Your task to perform on an android device: Search for "acer predator" on target.com, select the first entry, and add it to the cart. Image 0: 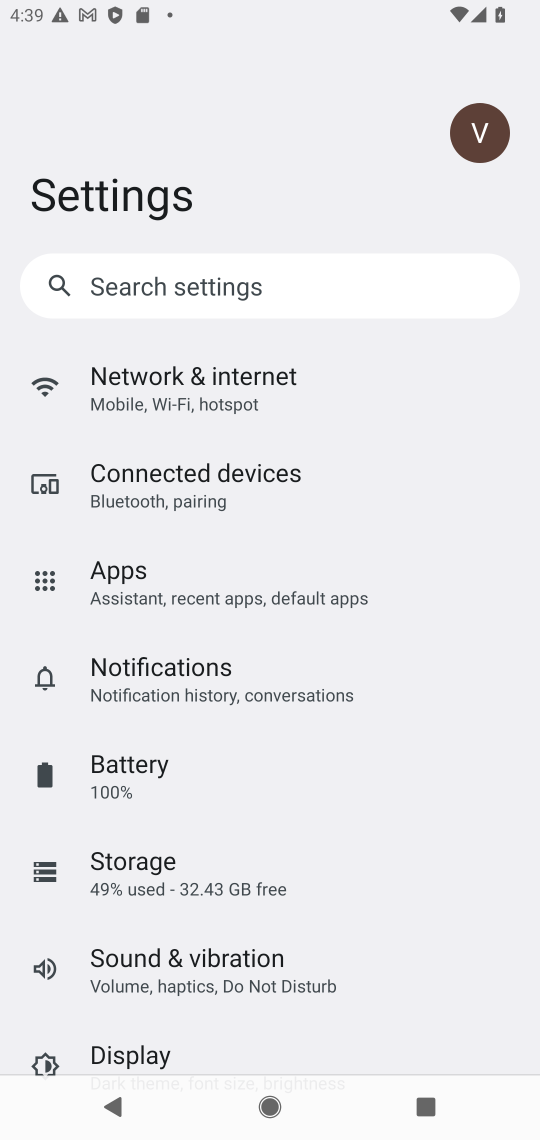
Step 0: press home button
Your task to perform on an android device: Search for "acer predator" on target.com, select the first entry, and add it to the cart. Image 1: 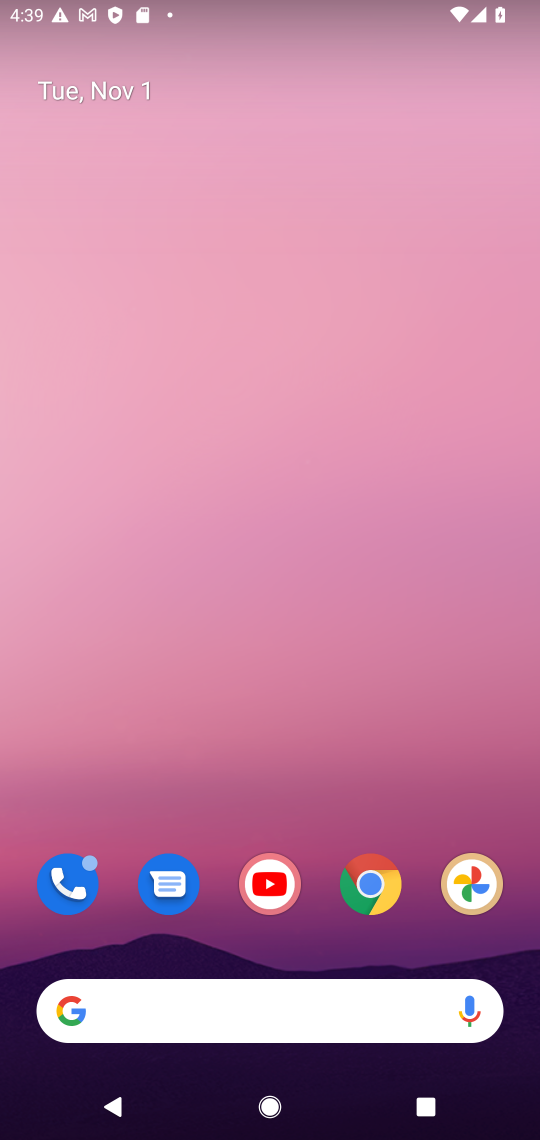
Step 1: click (376, 885)
Your task to perform on an android device: Search for "acer predator" on target.com, select the first entry, and add it to the cart. Image 2: 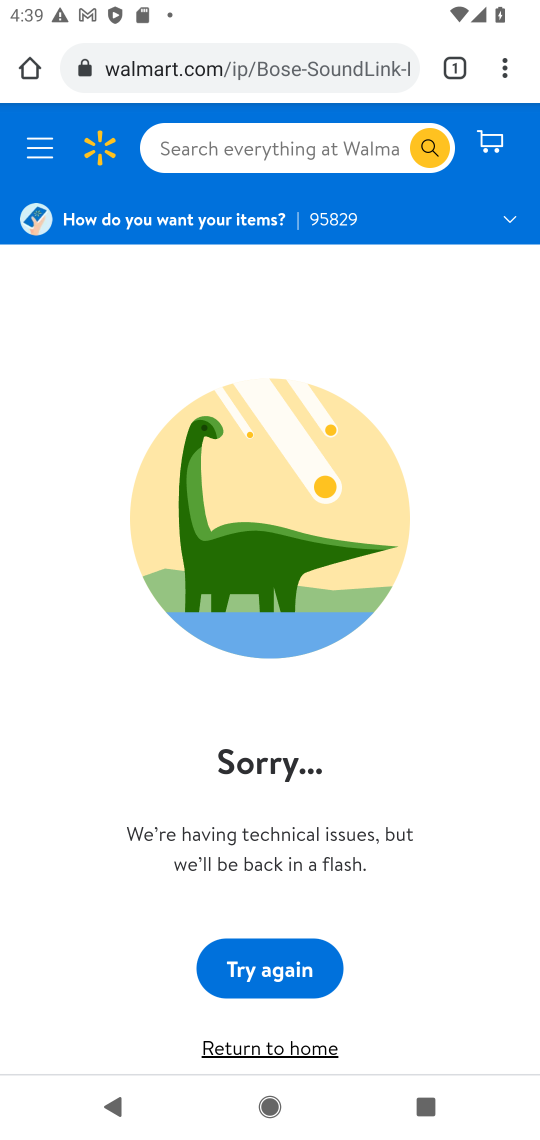
Step 2: click (258, 68)
Your task to perform on an android device: Search for "acer predator" on target.com, select the first entry, and add it to the cart. Image 3: 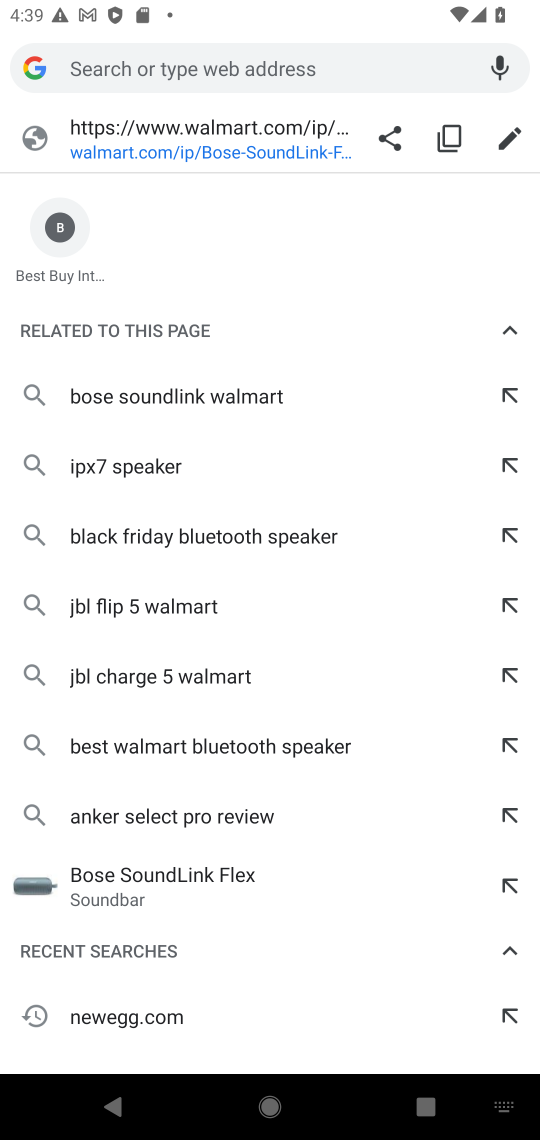
Step 3: type "target"
Your task to perform on an android device: Search for "acer predator" on target.com, select the first entry, and add it to the cart. Image 4: 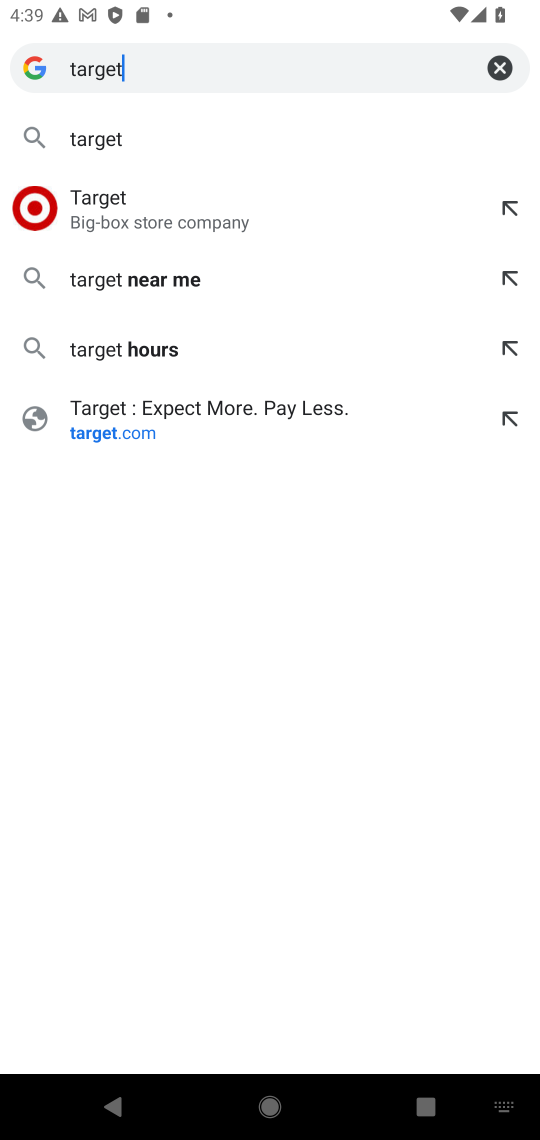
Step 4: click (111, 142)
Your task to perform on an android device: Search for "acer predator" on target.com, select the first entry, and add it to the cart. Image 5: 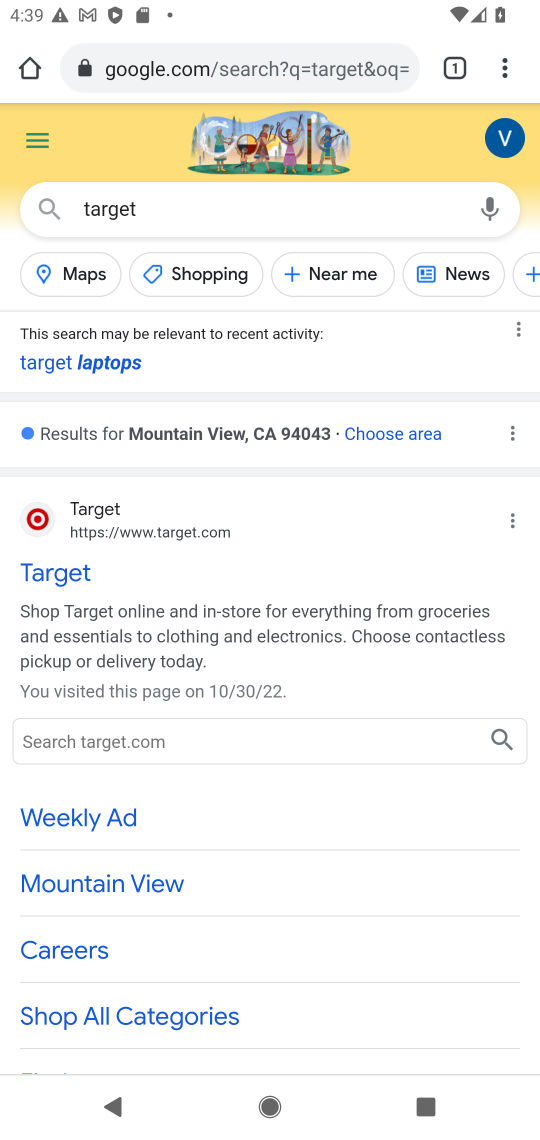
Step 5: click (85, 560)
Your task to perform on an android device: Search for "acer predator" on target.com, select the first entry, and add it to the cart. Image 6: 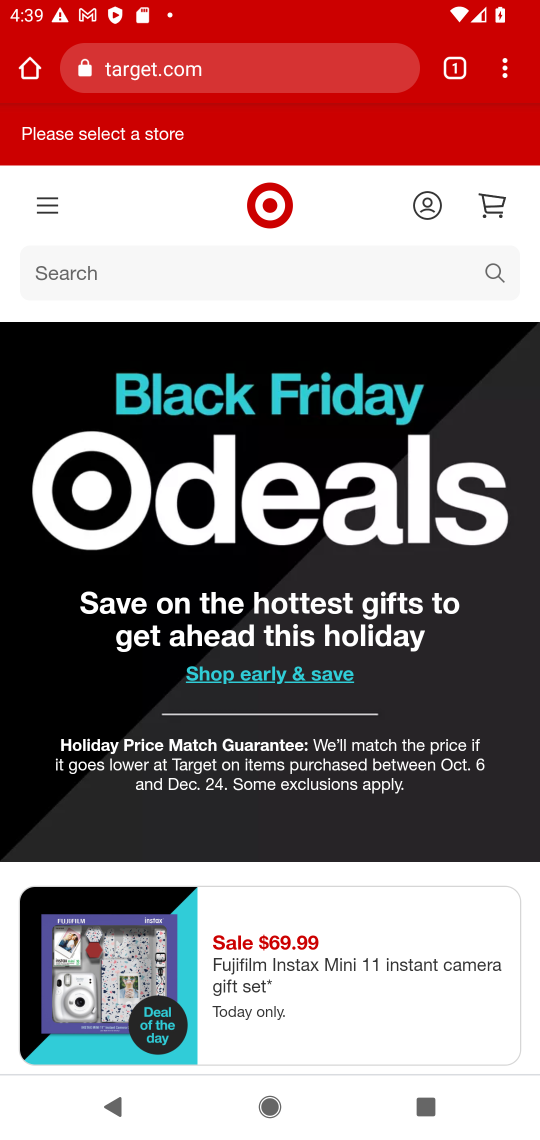
Step 6: click (232, 271)
Your task to perform on an android device: Search for "acer predator" on target.com, select the first entry, and add it to the cart. Image 7: 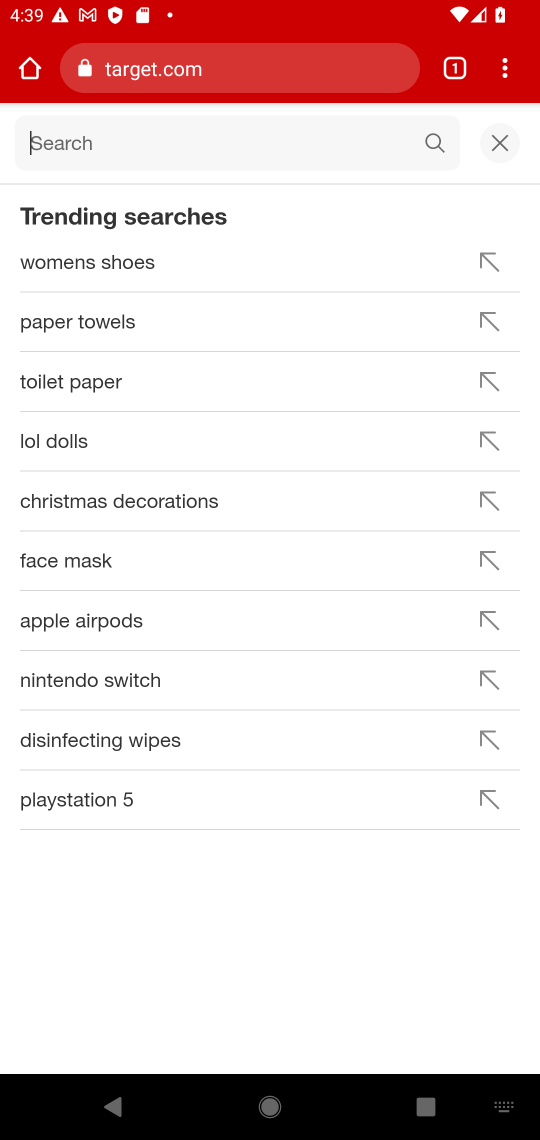
Step 7: type "acer predator"
Your task to perform on an android device: Search for "acer predator" on target.com, select the first entry, and add it to the cart. Image 8: 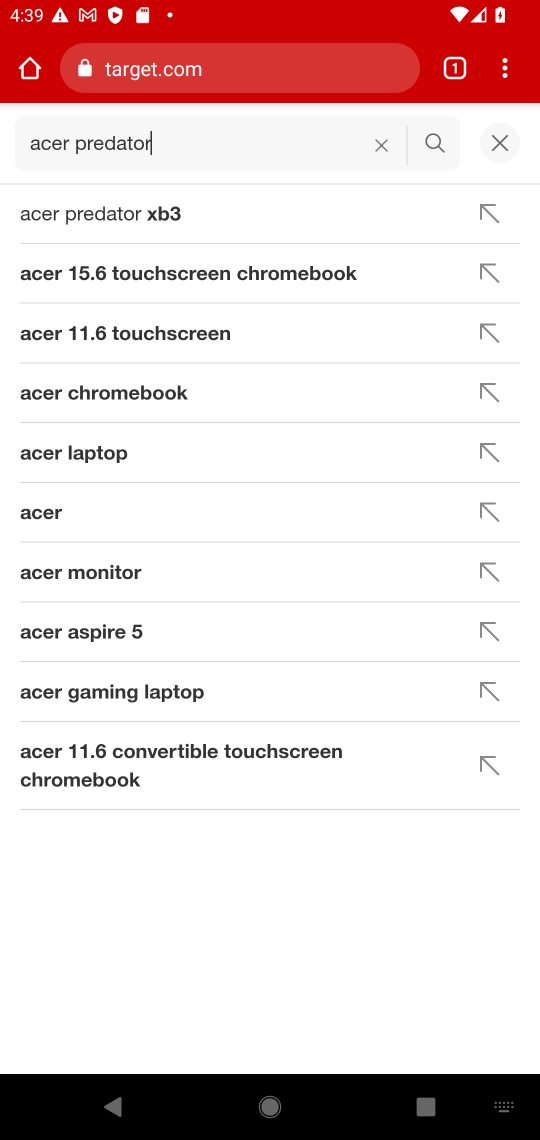
Step 8: click (435, 138)
Your task to perform on an android device: Search for "acer predator" on target.com, select the first entry, and add it to the cart. Image 9: 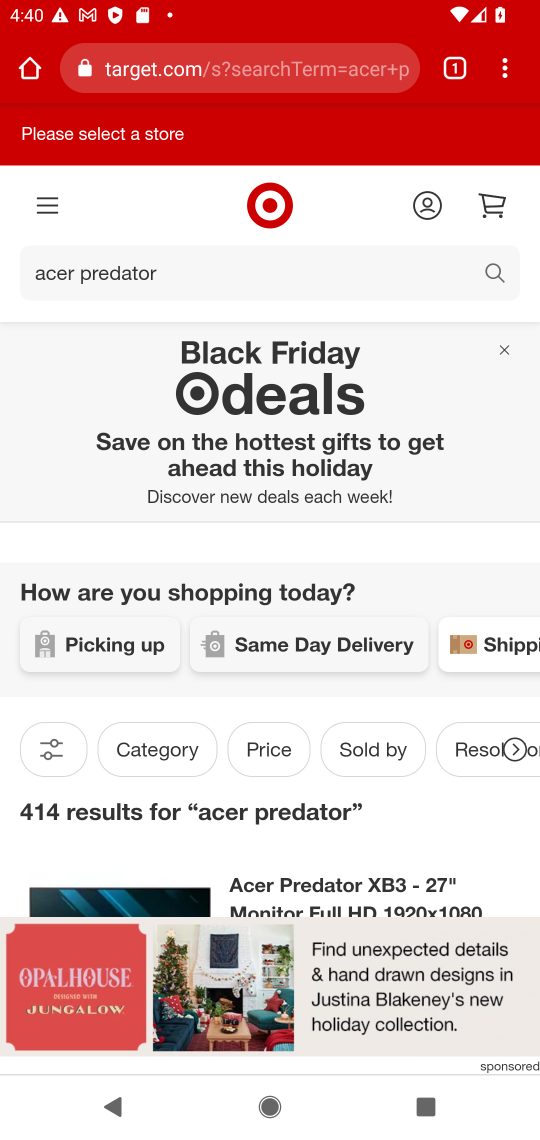
Step 9: drag from (367, 889) to (374, 574)
Your task to perform on an android device: Search for "acer predator" on target.com, select the first entry, and add it to the cart. Image 10: 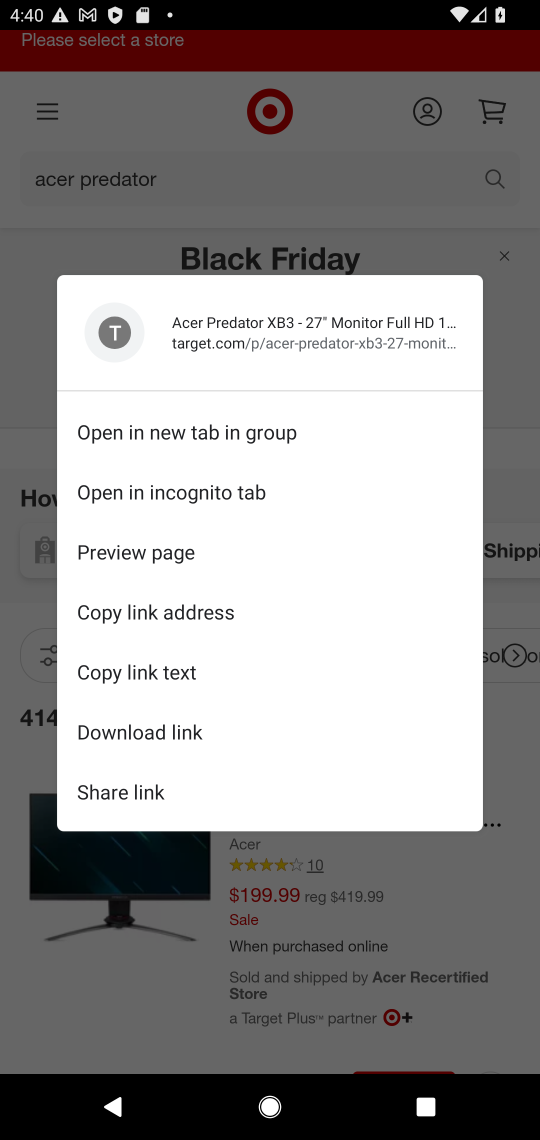
Step 10: click (302, 917)
Your task to perform on an android device: Search for "acer predator" on target.com, select the first entry, and add it to the cart. Image 11: 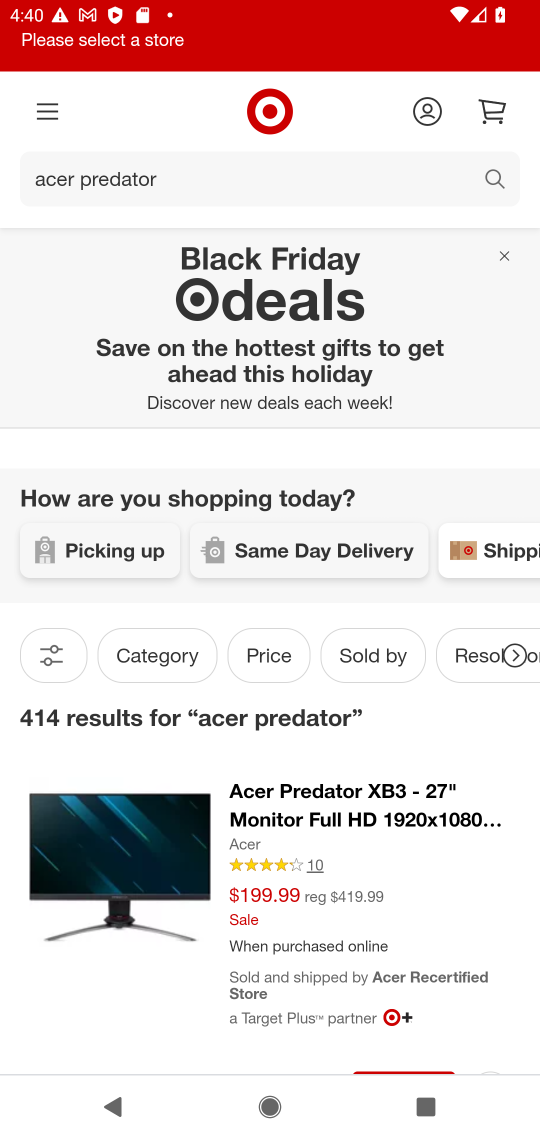
Step 11: click (319, 795)
Your task to perform on an android device: Search for "acer predator" on target.com, select the first entry, and add it to the cart. Image 12: 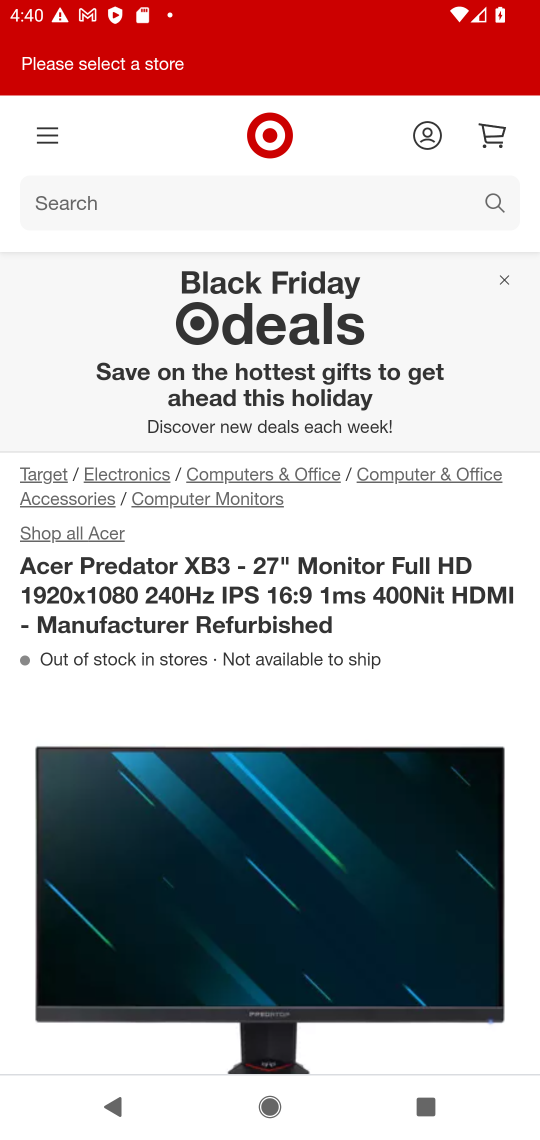
Step 12: drag from (339, 578) to (358, 362)
Your task to perform on an android device: Search for "acer predator" on target.com, select the first entry, and add it to the cart. Image 13: 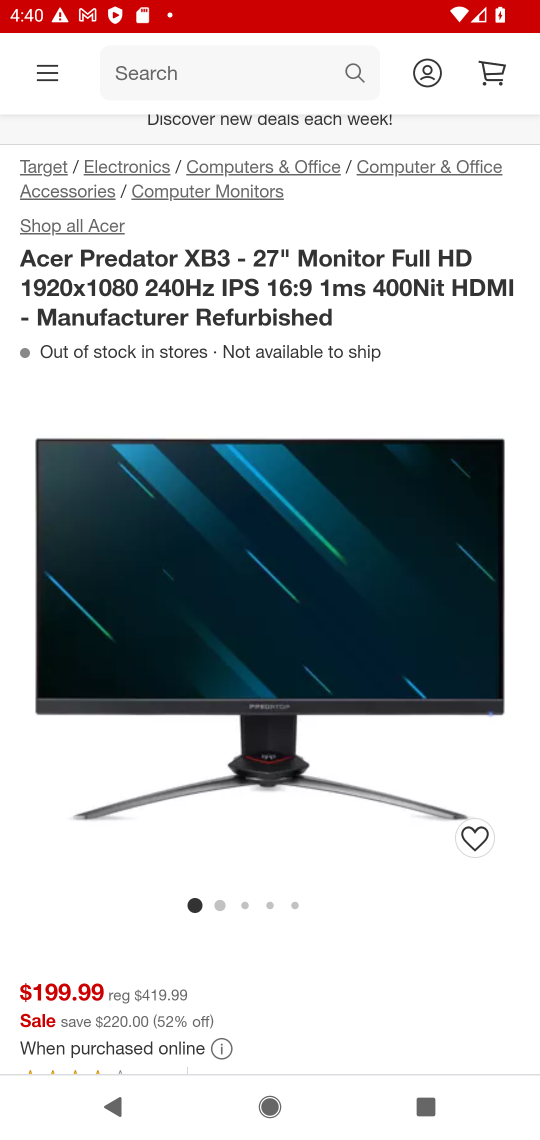
Step 13: drag from (301, 912) to (293, 454)
Your task to perform on an android device: Search for "acer predator" on target.com, select the first entry, and add it to the cart. Image 14: 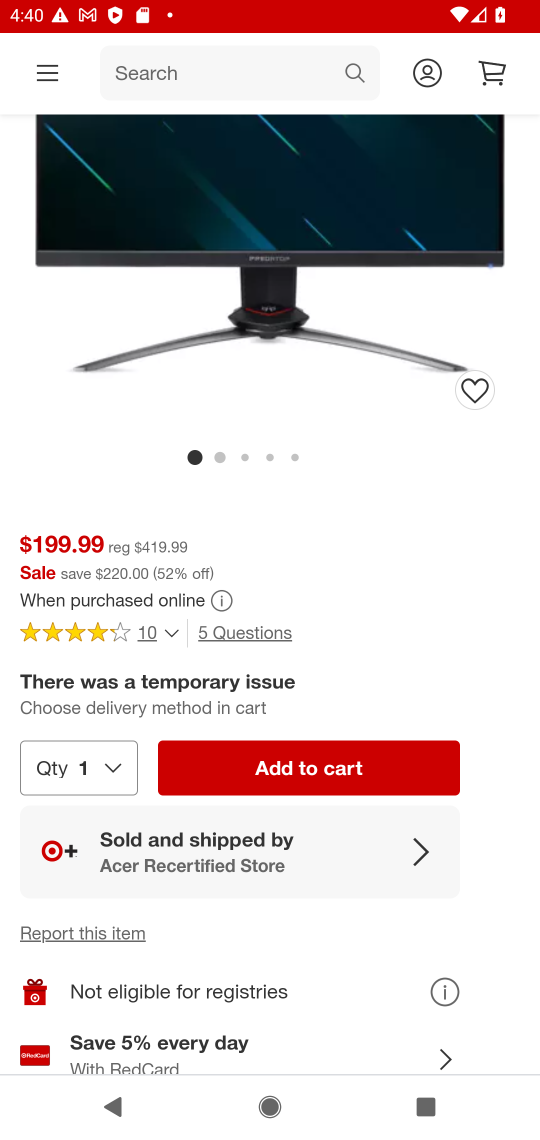
Step 14: click (332, 757)
Your task to perform on an android device: Search for "acer predator" on target.com, select the first entry, and add it to the cart. Image 15: 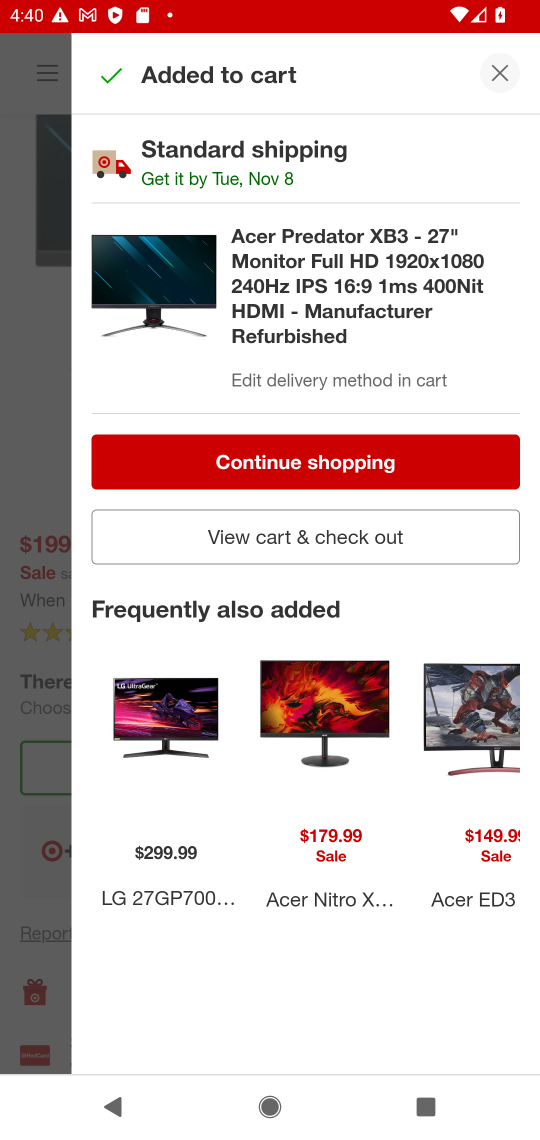
Step 15: click (313, 468)
Your task to perform on an android device: Search for "acer predator" on target.com, select the first entry, and add it to the cart. Image 16: 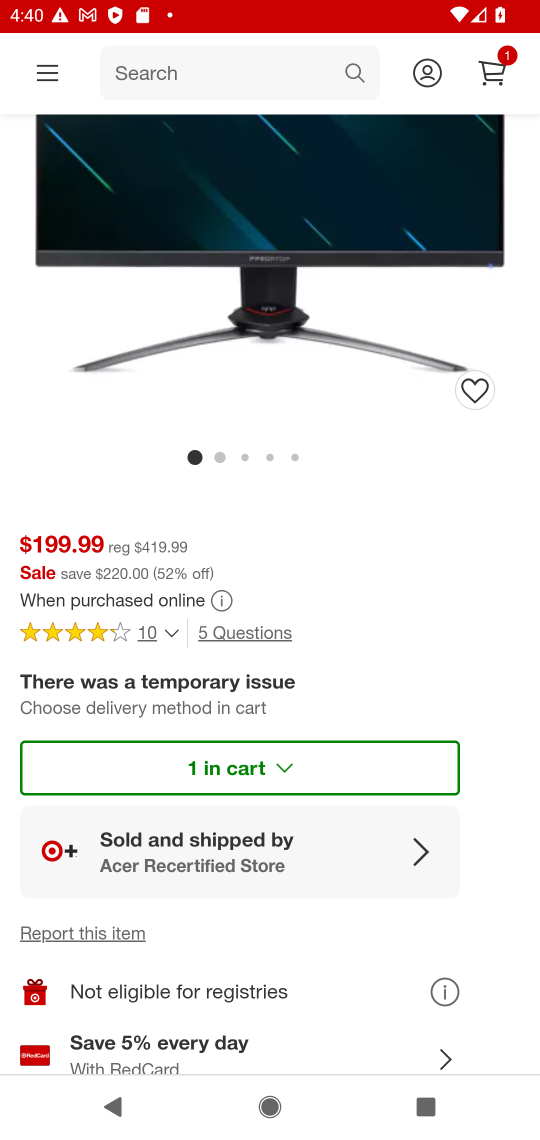
Step 16: task complete